Your task to perform on an android device: empty trash in google photos Image 0: 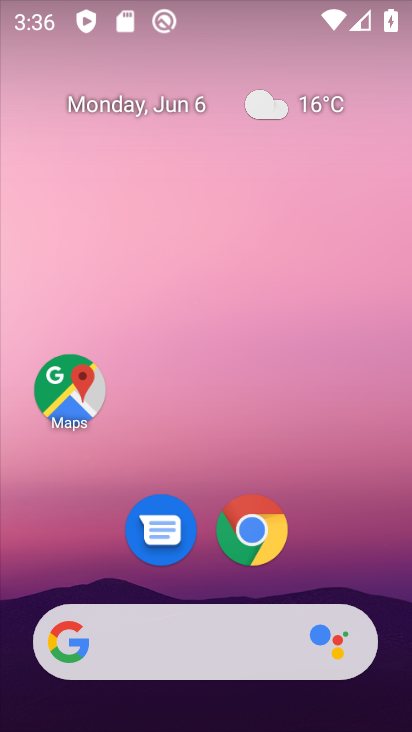
Step 0: drag from (364, 587) to (333, 205)
Your task to perform on an android device: empty trash in google photos Image 1: 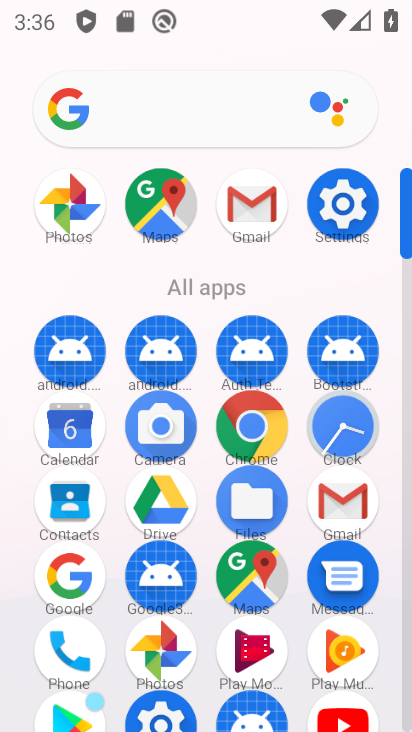
Step 1: click (62, 205)
Your task to perform on an android device: empty trash in google photos Image 2: 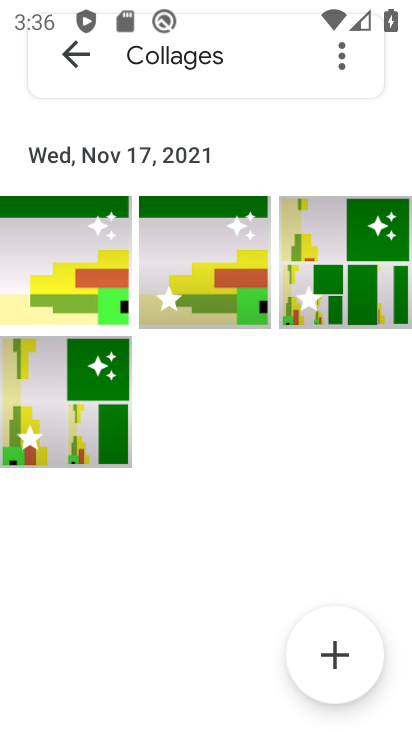
Step 2: click (72, 81)
Your task to perform on an android device: empty trash in google photos Image 3: 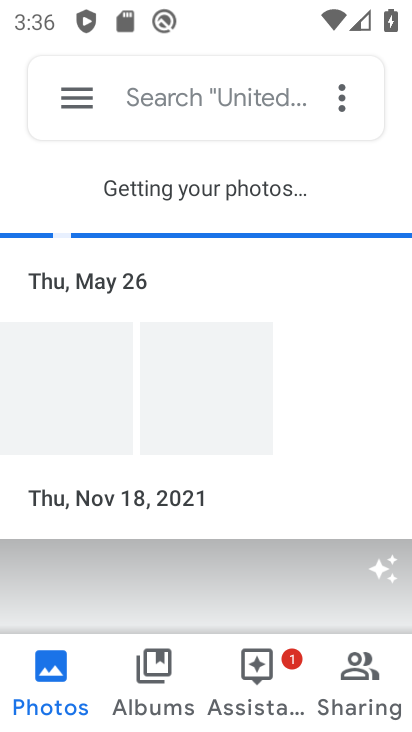
Step 3: click (72, 81)
Your task to perform on an android device: empty trash in google photos Image 4: 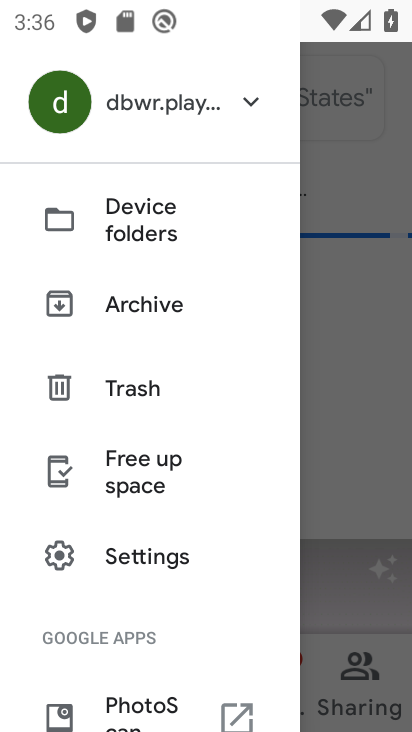
Step 4: click (161, 379)
Your task to perform on an android device: empty trash in google photos Image 5: 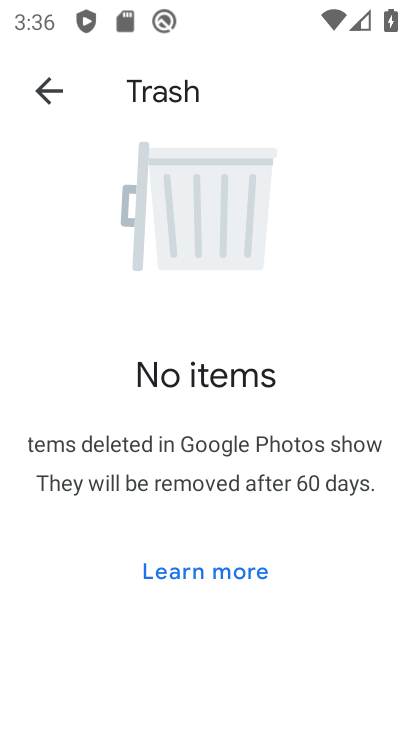
Step 5: task complete